Your task to perform on an android device: all mails in gmail Image 0: 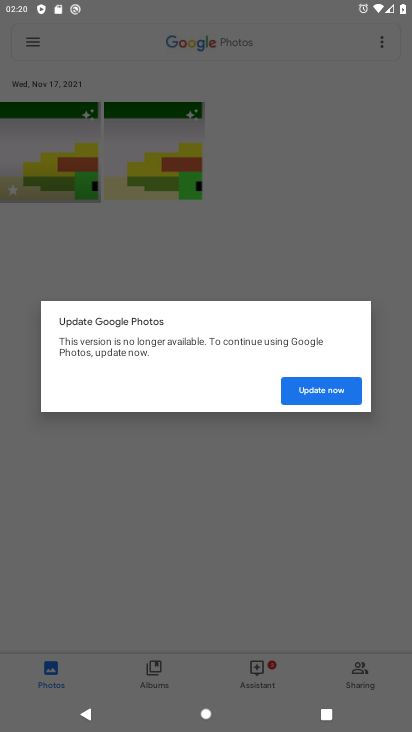
Step 0: press home button
Your task to perform on an android device: all mails in gmail Image 1: 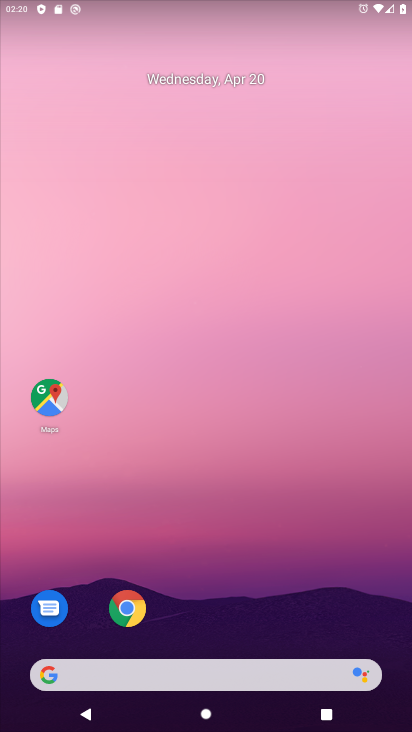
Step 1: drag from (370, 579) to (346, 197)
Your task to perform on an android device: all mails in gmail Image 2: 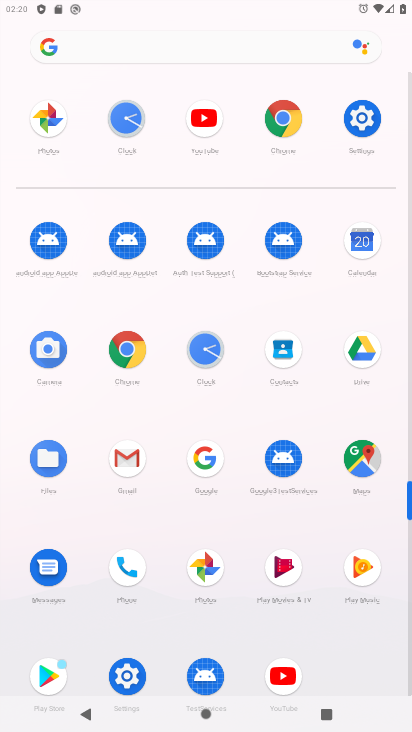
Step 2: click (137, 461)
Your task to perform on an android device: all mails in gmail Image 3: 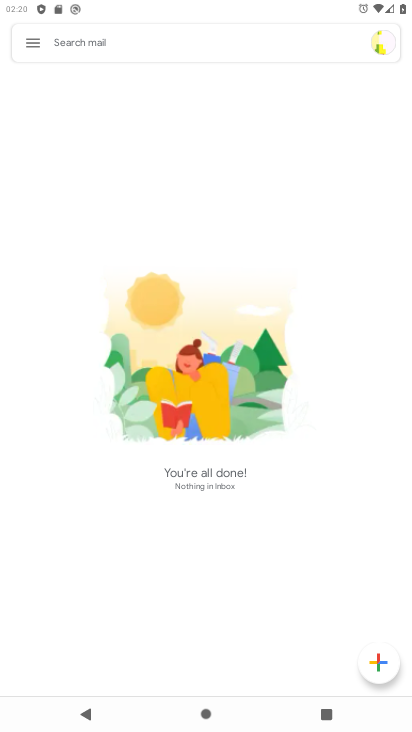
Step 3: click (29, 41)
Your task to perform on an android device: all mails in gmail Image 4: 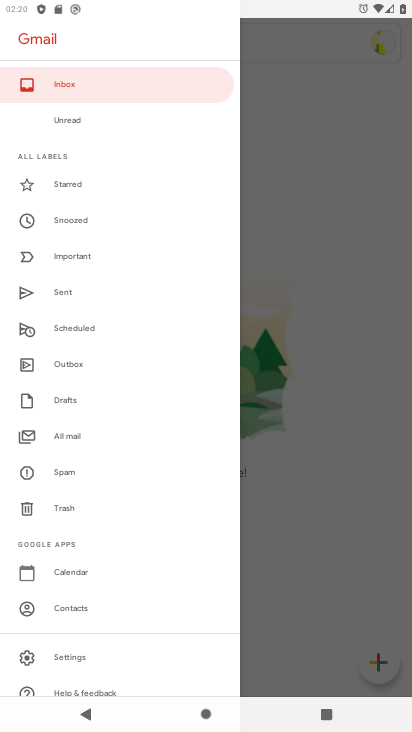
Step 4: click (105, 424)
Your task to perform on an android device: all mails in gmail Image 5: 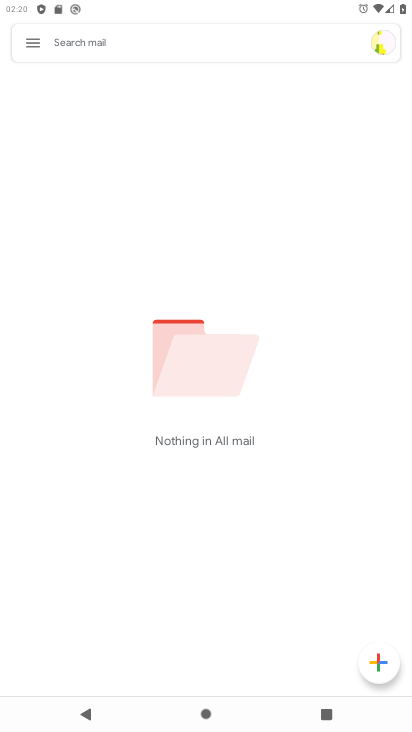
Step 5: task complete